Your task to perform on an android device: What is the recent news? Image 0: 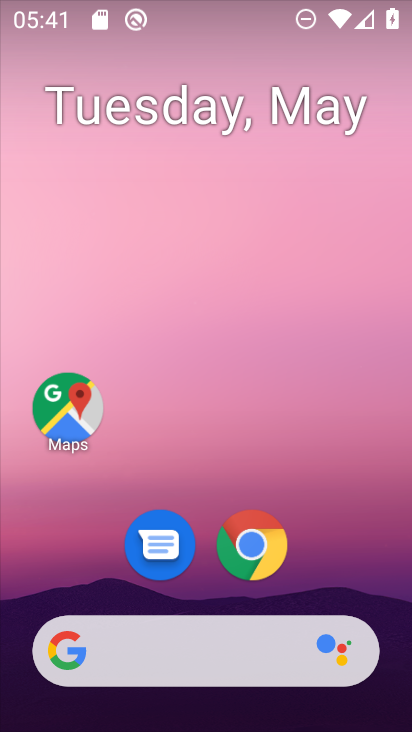
Step 0: drag from (337, 493) to (294, 89)
Your task to perform on an android device: What is the recent news? Image 1: 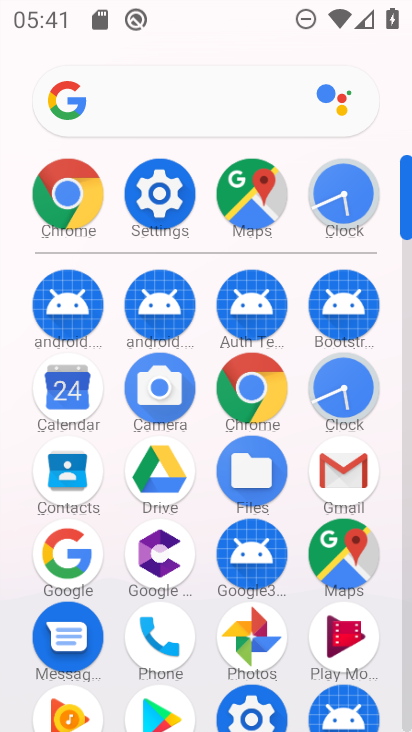
Step 1: drag from (19, 587) to (34, 261)
Your task to perform on an android device: What is the recent news? Image 2: 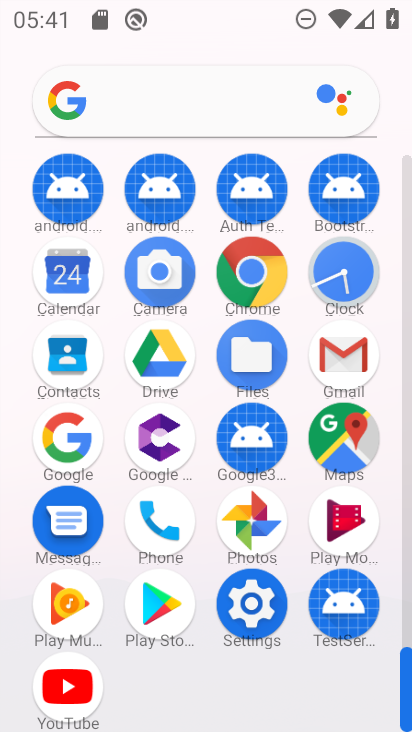
Step 2: click (250, 262)
Your task to perform on an android device: What is the recent news? Image 3: 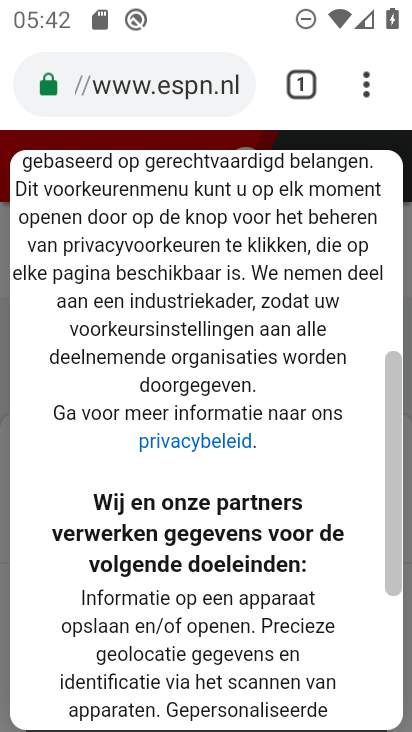
Step 3: click (162, 80)
Your task to perform on an android device: What is the recent news? Image 4: 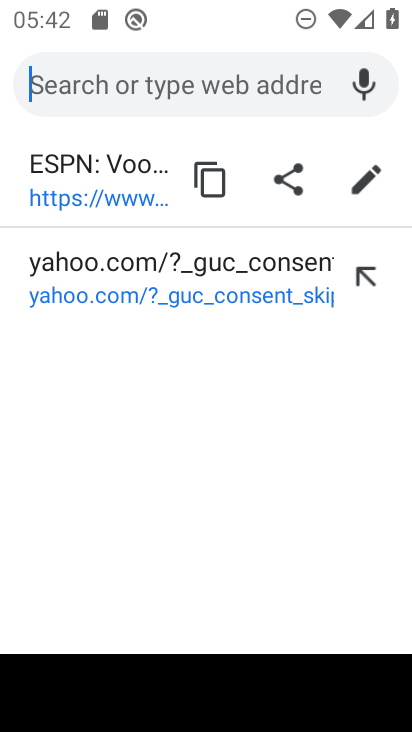
Step 4: type "What is the recent news?"
Your task to perform on an android device: What is the recent news? Image 5: 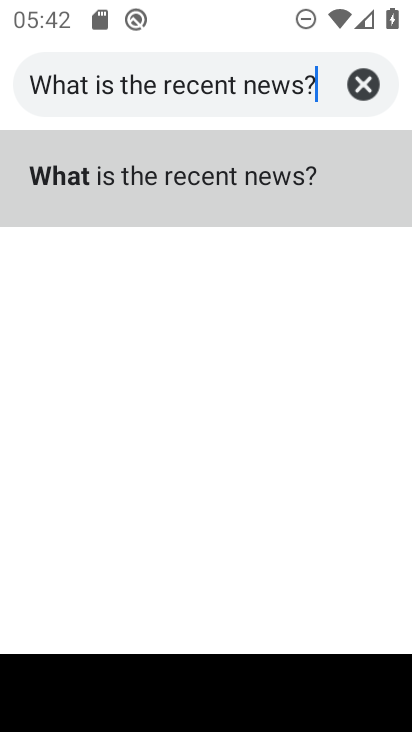
Step 5: type ""
Your task to perform on an android device: What is the recent news? Image 6: 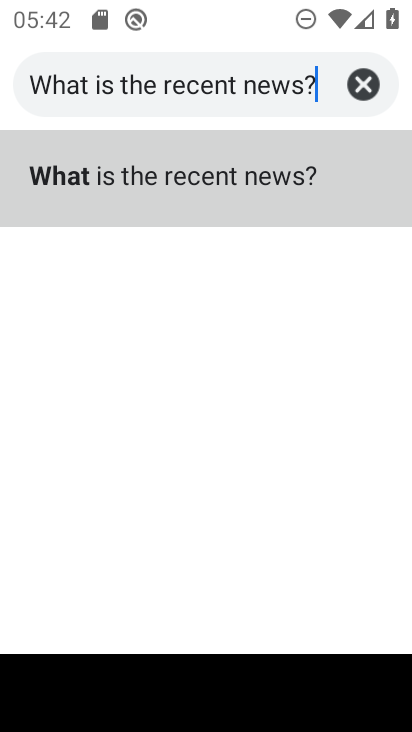
Step 6: click (270, 179)
Your task to perform on an android device: What is the recent news? Image 7: 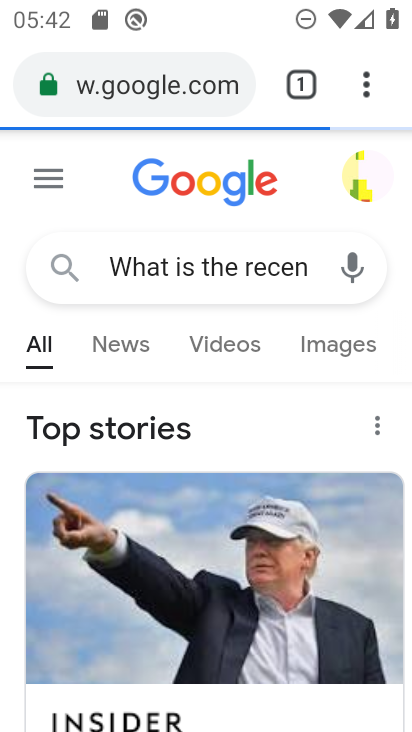
Step 7: task complete